Your task to perform on an android device: Open Google Image 0: 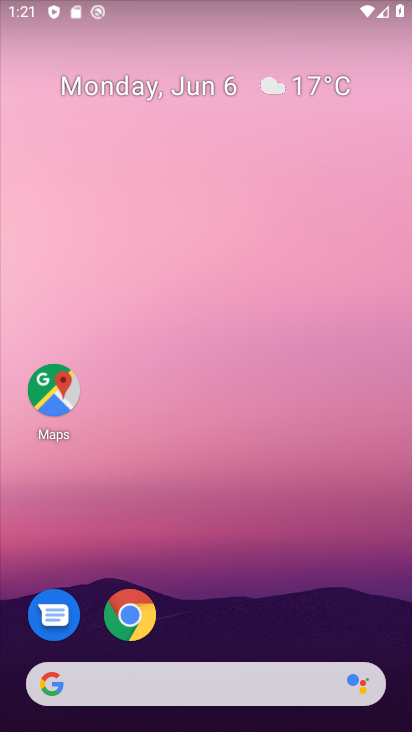
Step 0: drag from (201, 645) to (302, 186)
Your task to perform on an android device: Open Google Image 1: 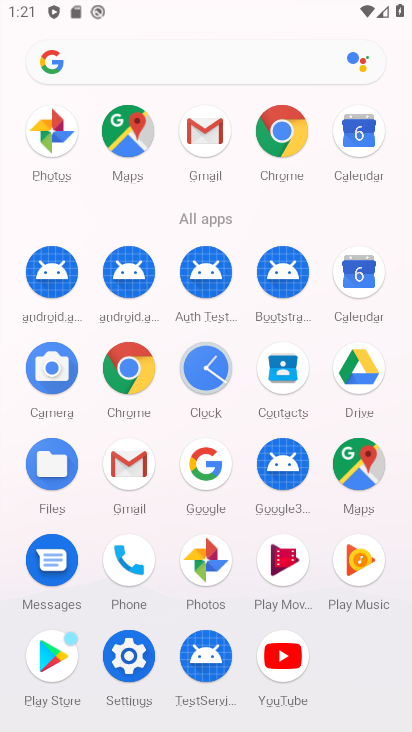
Step 1: click (216, 480)
Your task to perform on an android device: Open Google Image 2: 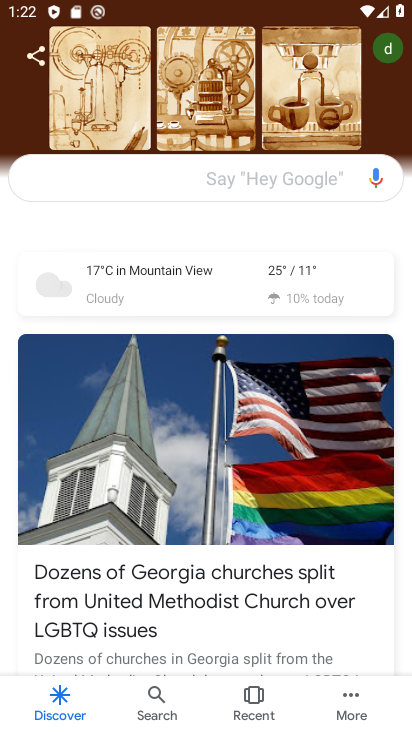
Step 2: task complete